Your task to perform on an android device: Open Google Maps Image 0: 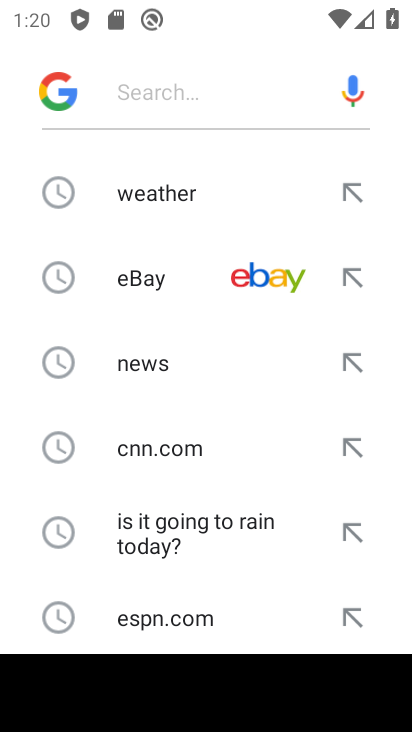
Step 0: press home button
Your task to perform on an android device: Open Google Maps Image 1: 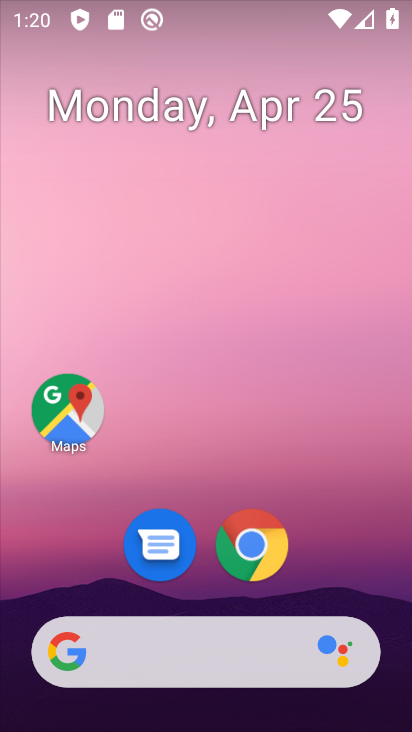
Step 1: click (65, 406)
Your task to perform on an android device: Open Google Maps Image 2: 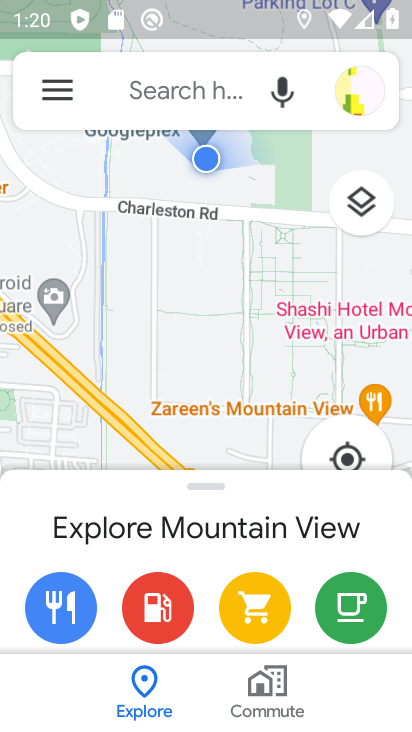
Step 2: task complete